Your task to perform on an android device: Open the calendar and show me this week's events? Image 0: 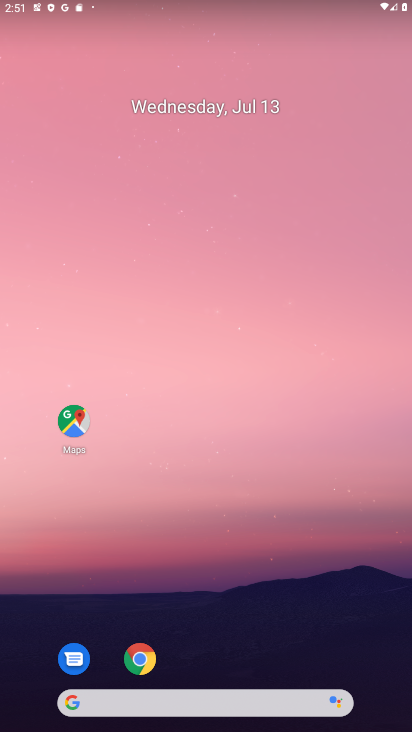
Step 0: drag from (245, 645) to (263, 114)
Your task to perform on an android device: Open the calendar and show me this week's events? Image 1: 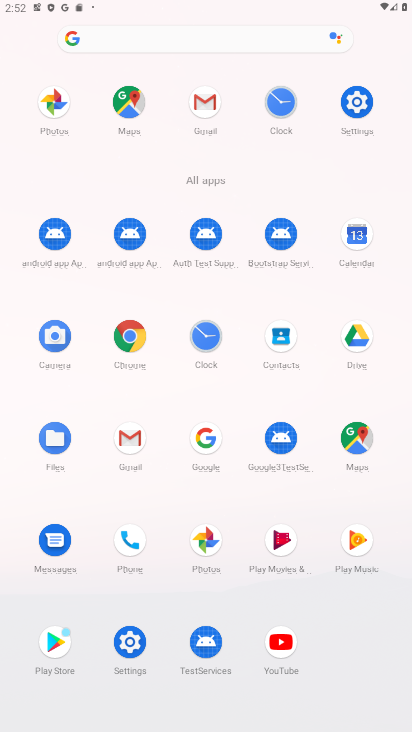
Step 1: click (366, 246)
Your task to perform on an android device: Open the calendar and show me this week's events? Image 2: 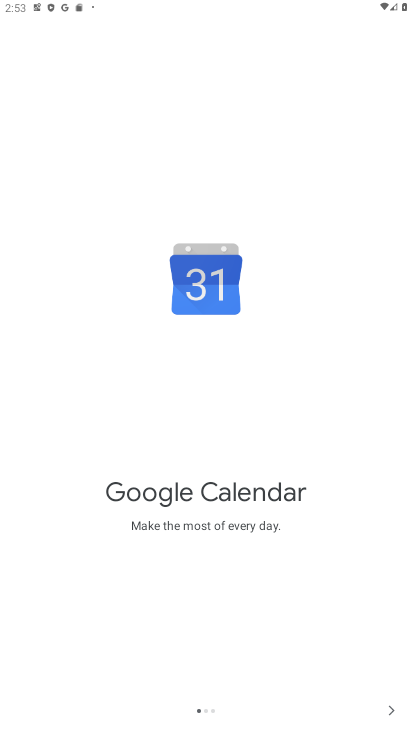
Step 2: click (378, 711)
Your task to perform on an android device: Open the calendar and show me this week's events? Image 3: 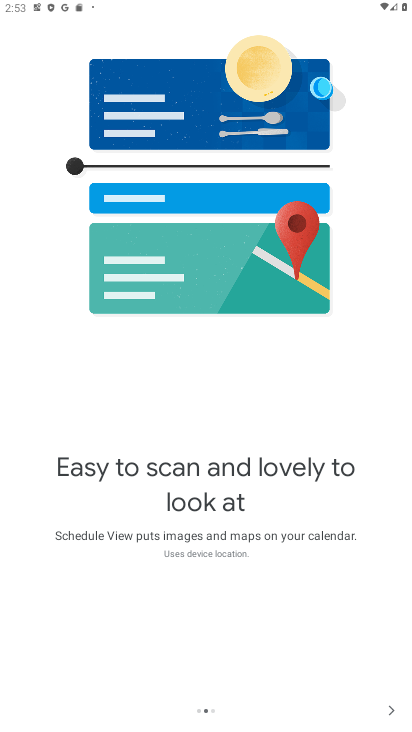
Step 3: click (378, 711)
Your task to perform on an android device: Open the calendar and show me this week's events? Image 4: 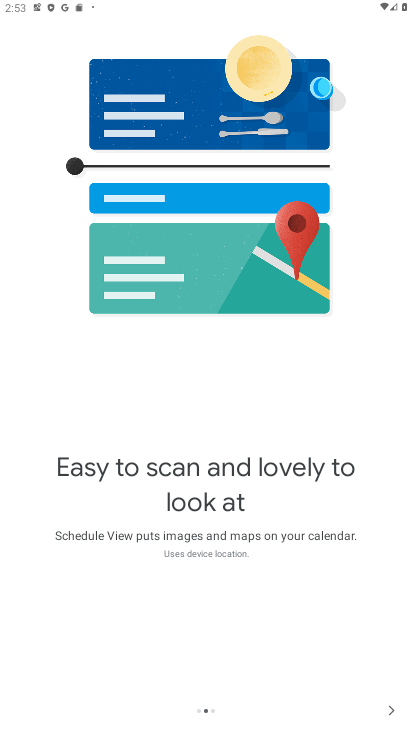
Step 4: click (378, 711)
Your task to perform on an android device: Open the calendar and show me this week's events? Image 5: 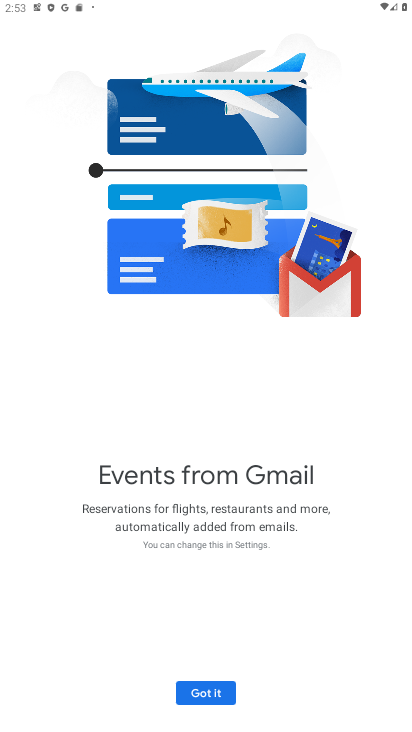
Step 5: click (378, 711)
Your task to perform on an android device: Open the calendar and show me this week's events? Image 6: 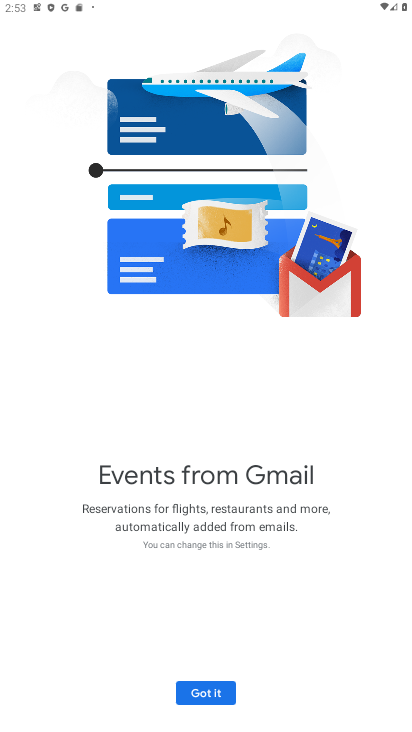
Step 6: click (201, 688)
Your task to perform on an android device: Open the calendar and show me this week's events? Image 7: 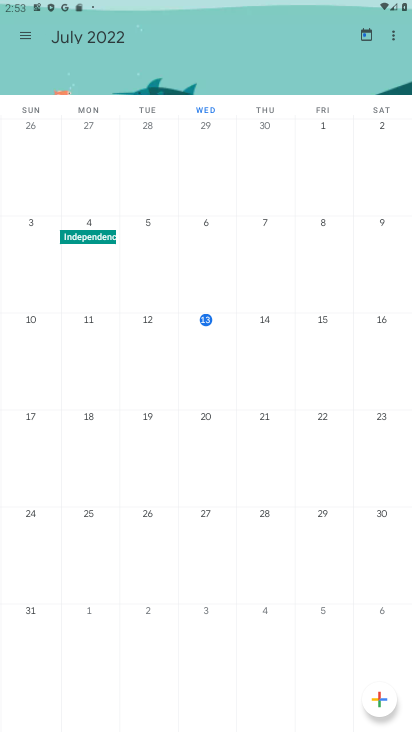
Step 7: click (199, 416)
Your task to perform on an android device: Open the calendar and show me this week's events? Image 8: 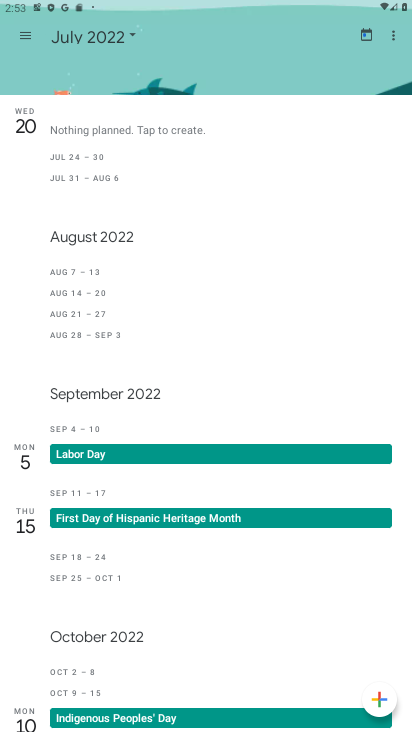
Step 8: task complete